Your task to perform on an android device: turn off translation in the chrome app Image 0: 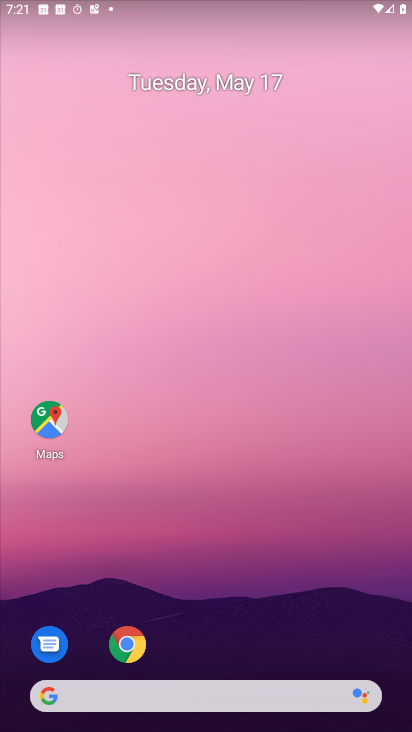
Step 0: drag from (354, 620) to (309, 83)
Your task to perform on an android device: turn off translation in the chrome app Image 1: 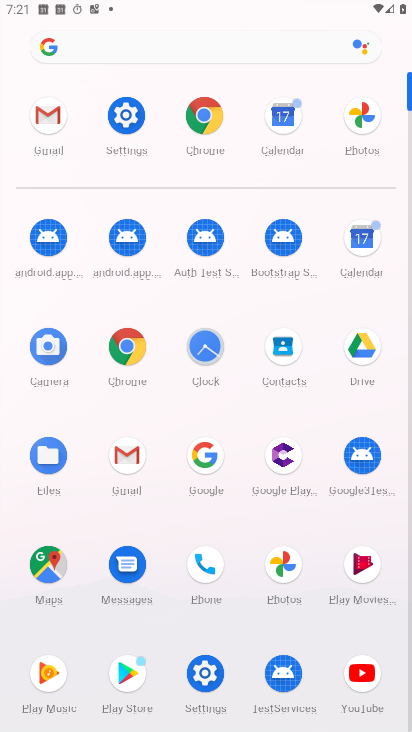
Step 1: click (126, 347)
Your task to perform on an android device: turn off translation in the chrome app Image 2: 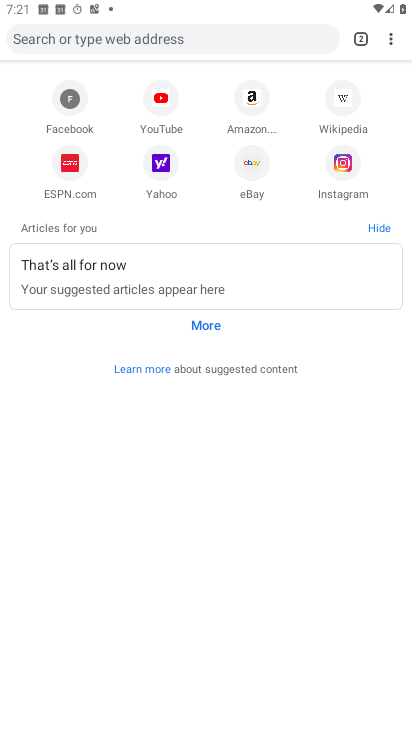
Step 2: click (390, 35)
Your task to perform on an android device: turn off translation in the chrome app Image 3: 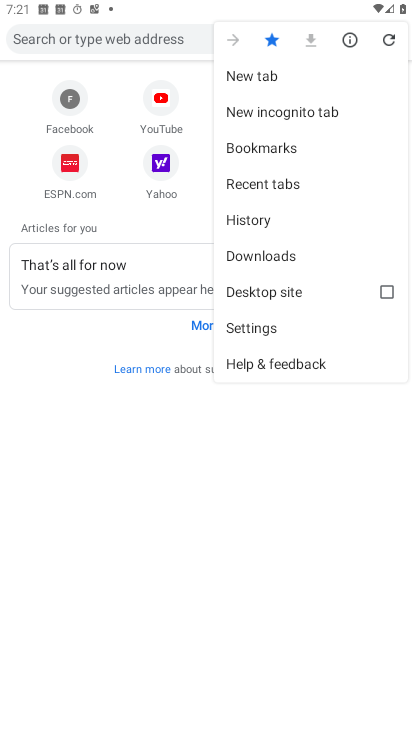
Step 3: click (277, 331)
Your task to perform on an android device: turn off translation in the chrome app Image 4: 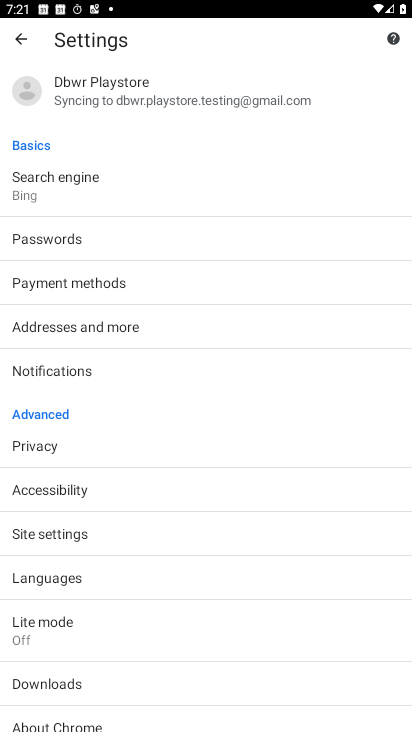
Step 4: click (74, 585)
Your task to perform on an android device: turn off translation in the chrome app Image 5: 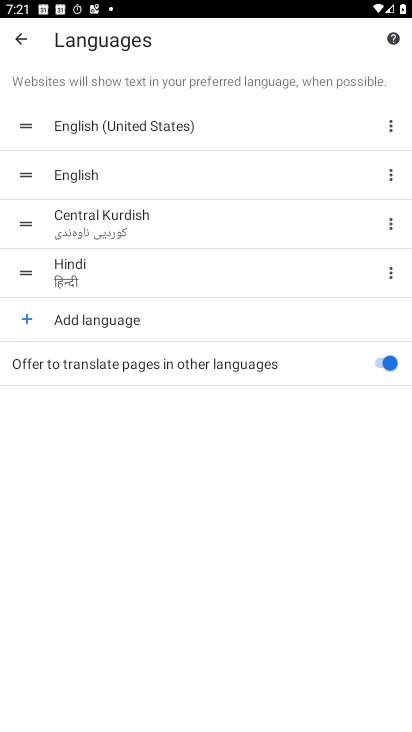
Step 5: click (362, 362)
Your task to perform on an android device: turn off translation in the chrome app Image 6: 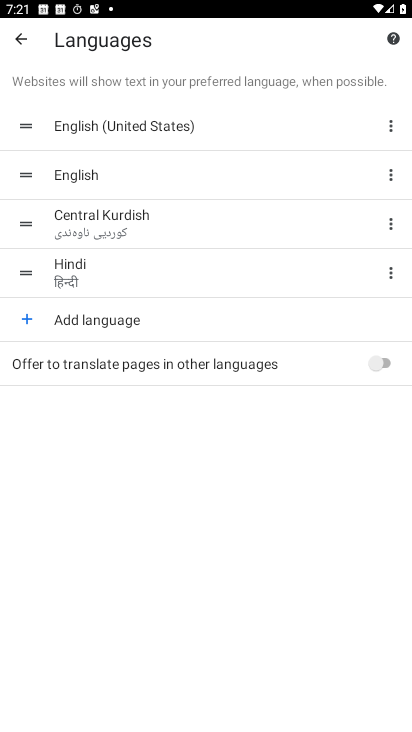
Step 6: task complete